Your task to perform on an android device: Go to Google Image 0: 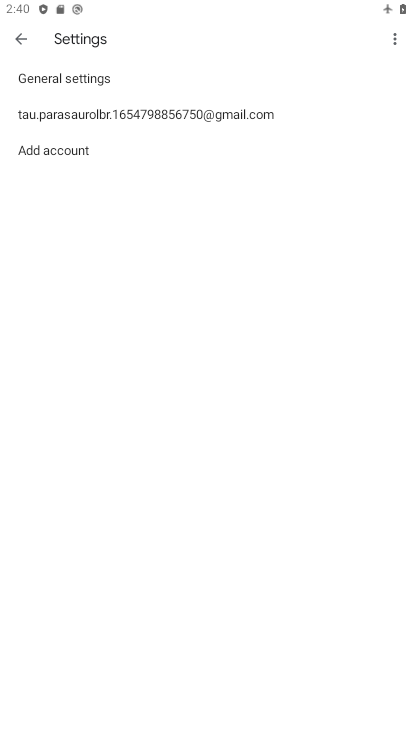
Step 0: press home button
Your task to perform on an android device: Go to Google Image 1: 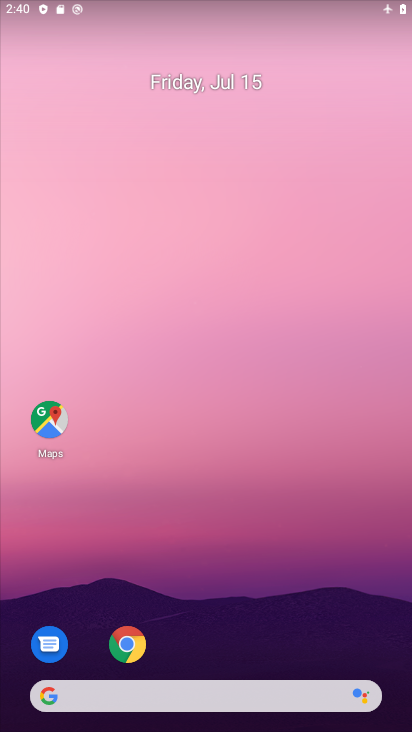
Step 1: drag from (328, 639) to (345, 8)
Your task to perform on an android device: Go to Google Image 2: 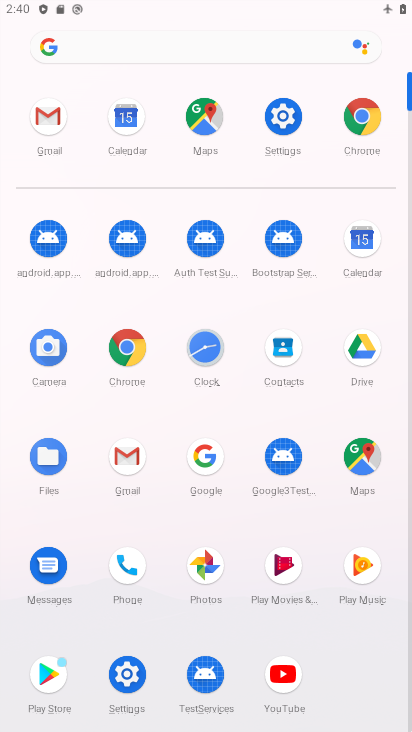
Step 2: click (135, 351)
Your task to perform on an android device: Go to Google Image 3: 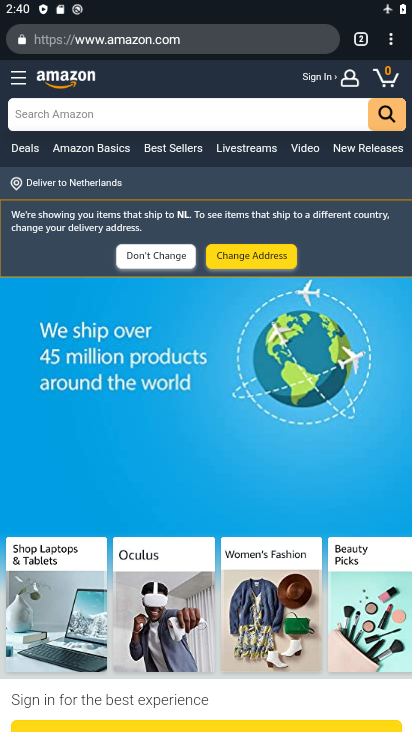
Step 3: drag from (375, 56) to (320, 69)
Your task to perform on an android device: Go to Google Image 4: 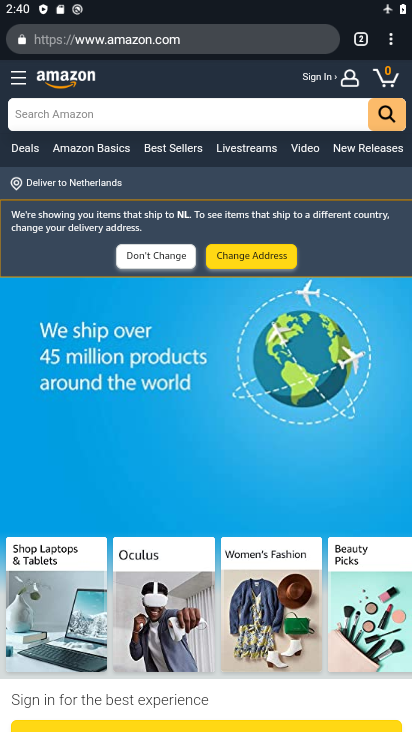
Step 4: click (385, 37)
Your task to perform on an android device: Go to Google Image 5: 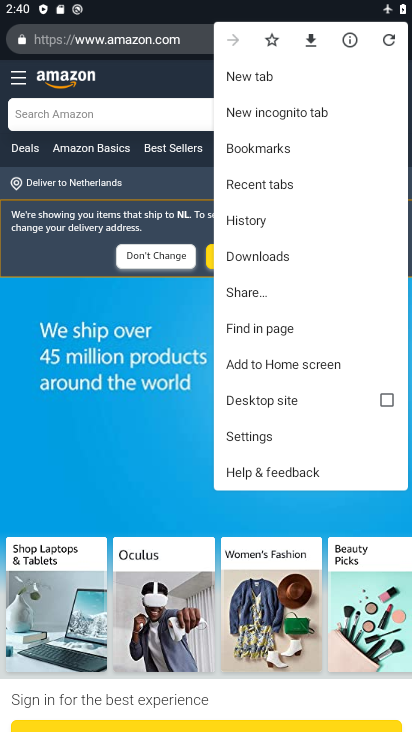
Step 5: click (328, 74)
Your task to perform on an android device: Go to Google Image 6: 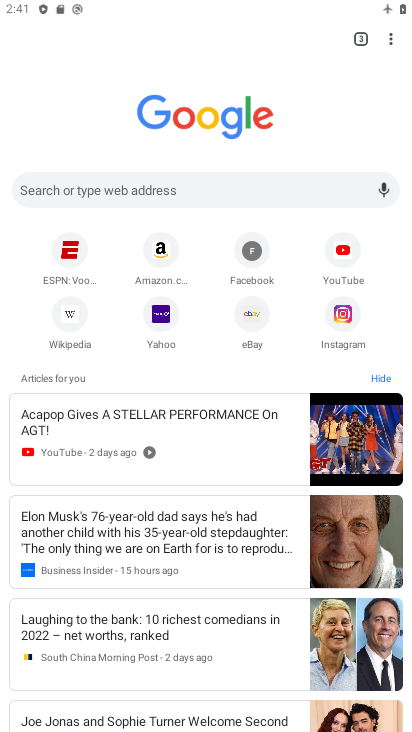
Step 6: task complete